Your task to perform on an android device: check google app version Image 0: 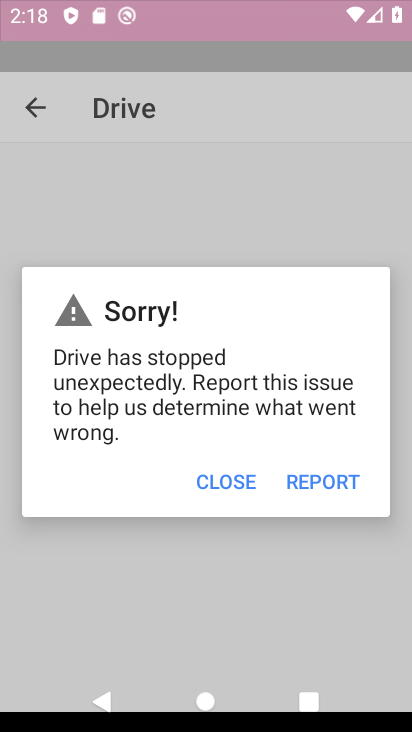
Step 0: click (365, 104)
Your task to perform on an android device: check google app version Image 1: 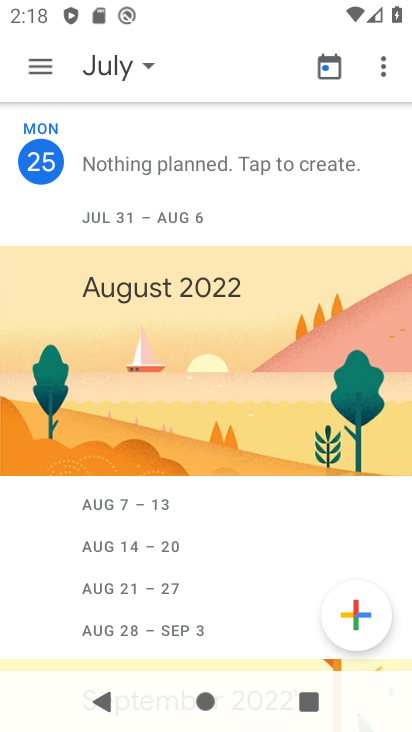
Step 1: press home button
Your task to perform on an android device: check google app version Image 2: 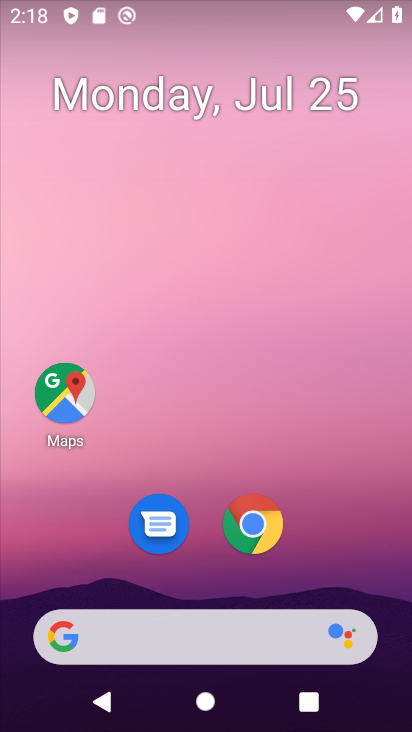
Step 2: drag from (221, 602) to (328, 74)
Your task to perform on an android device: check google app version Image 3: 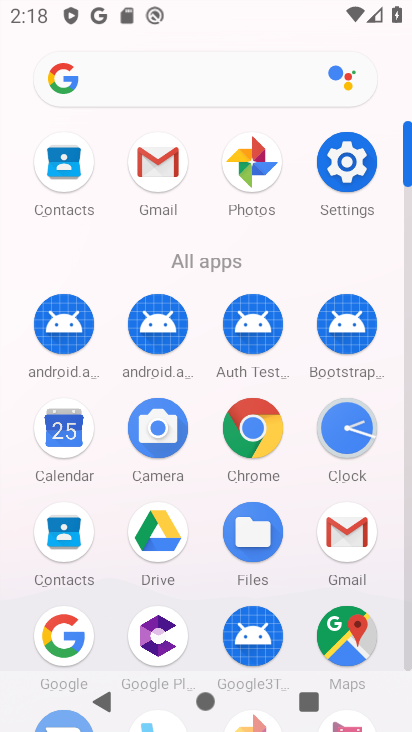
Step 3: drag from (76, 645) to (283, 352)
Your task to perform on an android device: check google app version Image 4: 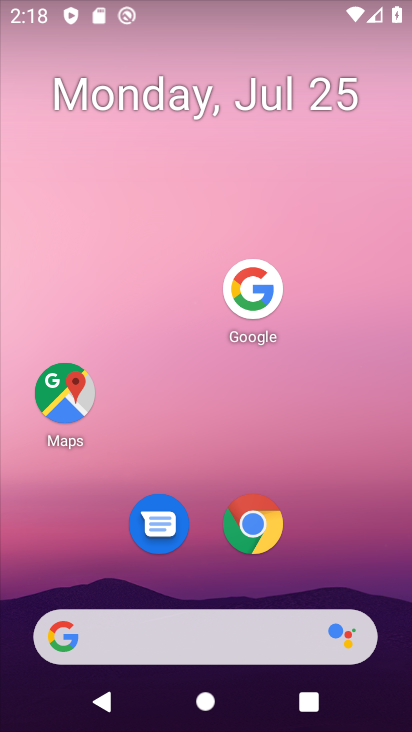
Step 4: drag from (241, 289) to (228, 409)
Your task to perform on an android device: check google app version Image 5: 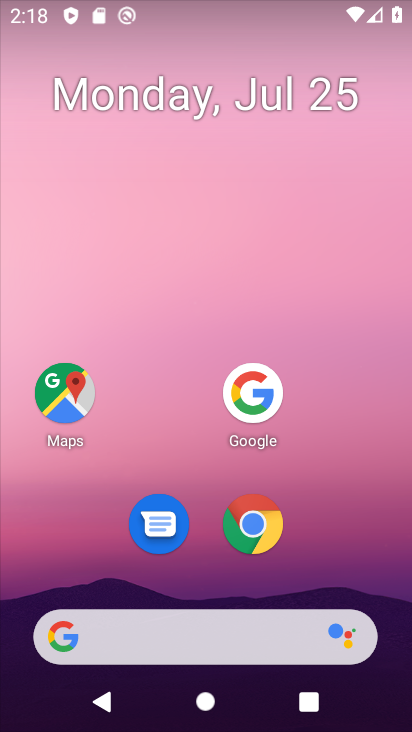
Step 5: drag from (263, 392) to (254, 344)
Your task to perform on an android device: check google app version Image 6: 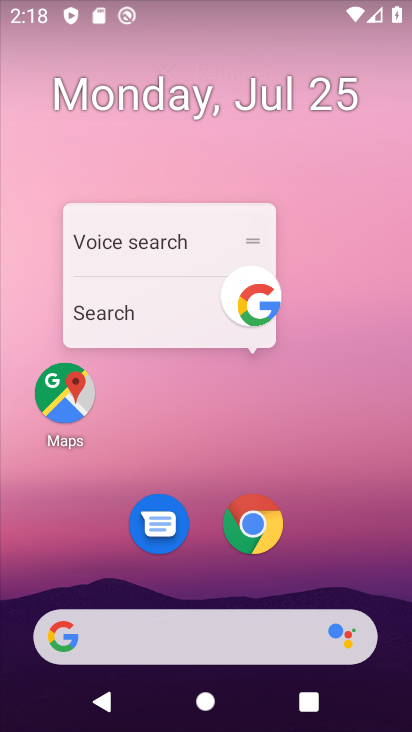
Step 6: click (190, 183)
Your task to perform on an android device: check google app version Image 7: 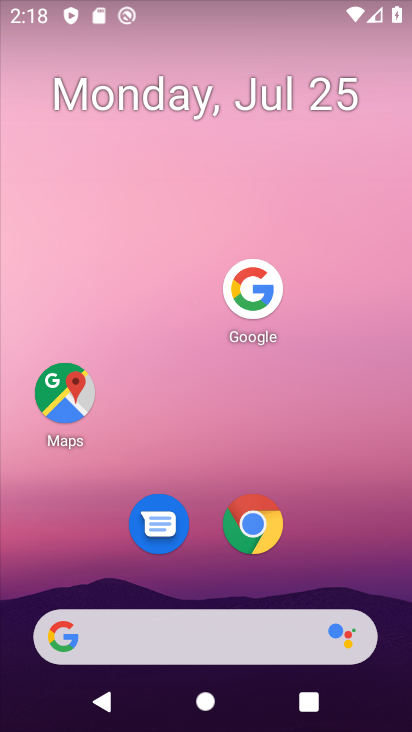
Step 7: drag from (261, 277) to (242, 238)
Your task to perform on an android device: check google app version Image 8: 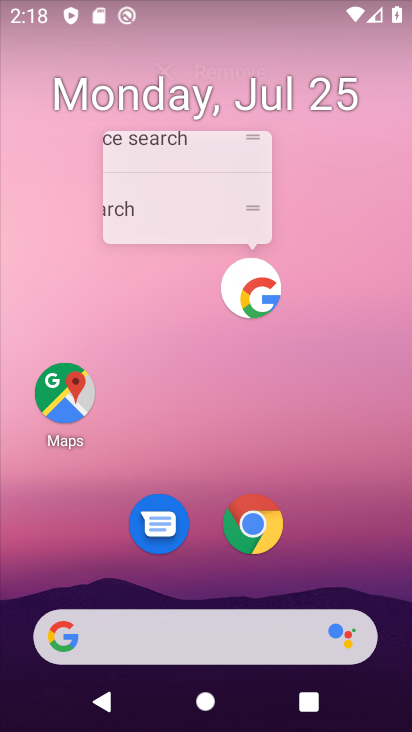
Step 8: click (192, 75)
Your task to perform on an android device: check google app version Image 9: 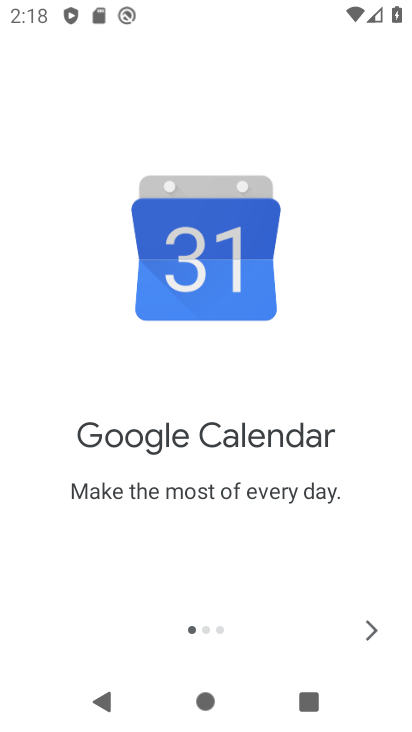
Step 9: press back button
Your task to perform on an android device: check google app version Image 10: 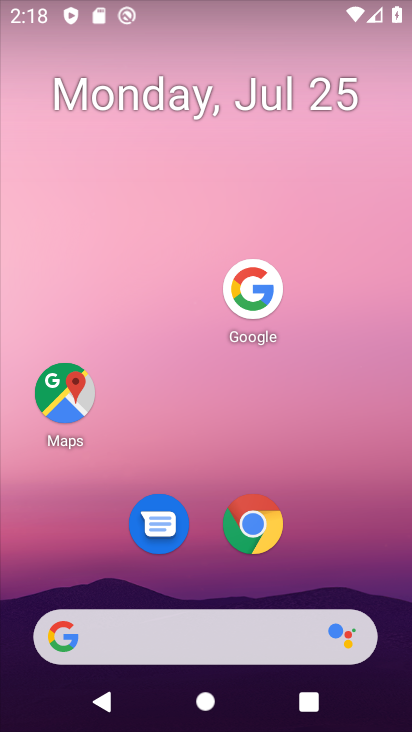
Step 10: drag from (246, 296) to (226, 441)
Your task to perform on an android device: check google app version Image 11: 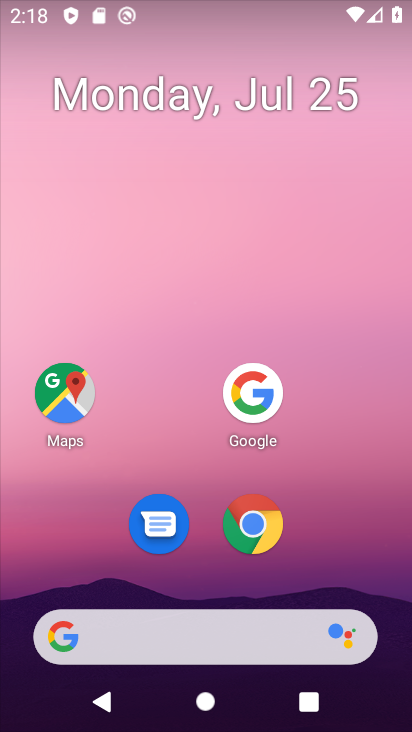
Step 11: click (251, 381)
Your task to perform on an android device: check google app version Image 12: 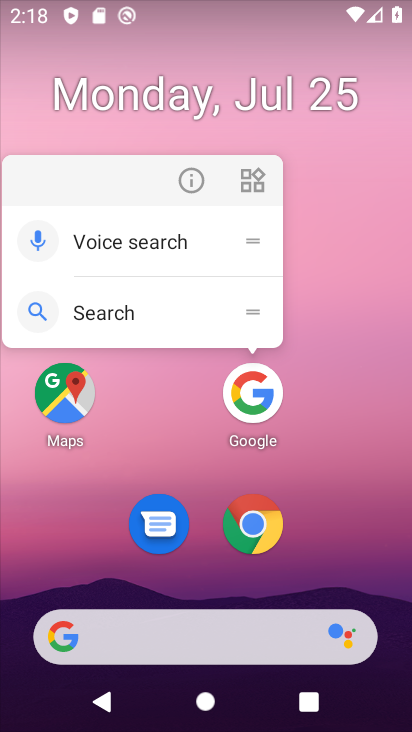
Step 12: click (185, 178)
Your task to perform on an android device: check google app version Image 13: 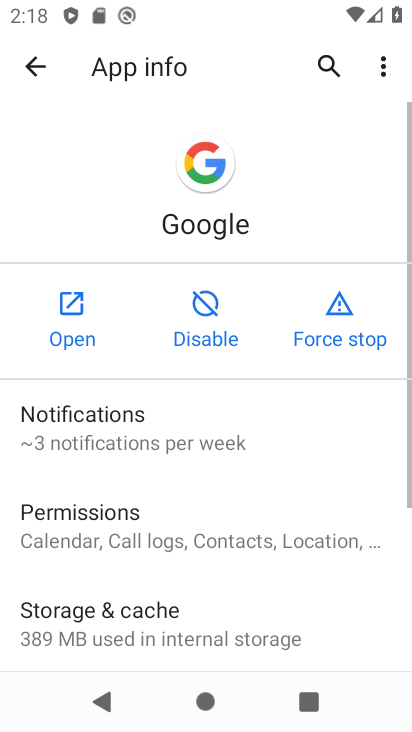
Step 13: drag from (230, 628) to (308, 99)
Your task to perform on an android device: check google app version Image 14: 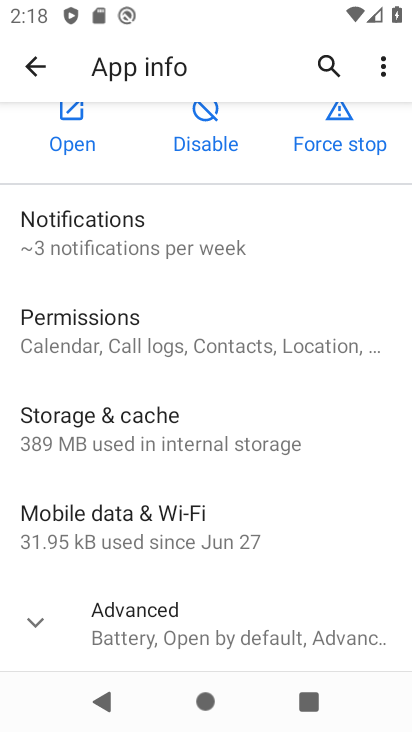
Step 14: click (157, 618)
Your task to perform on an android device: check google app version Image 15: 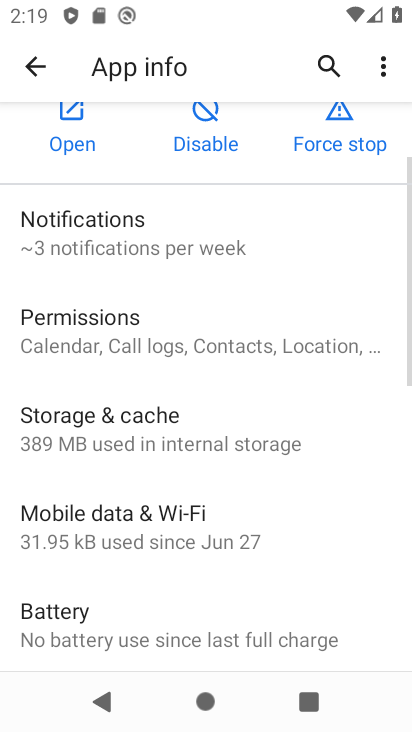
Step 15: task complete